Your task to perform on an android device: change keyboard looks Image 0: 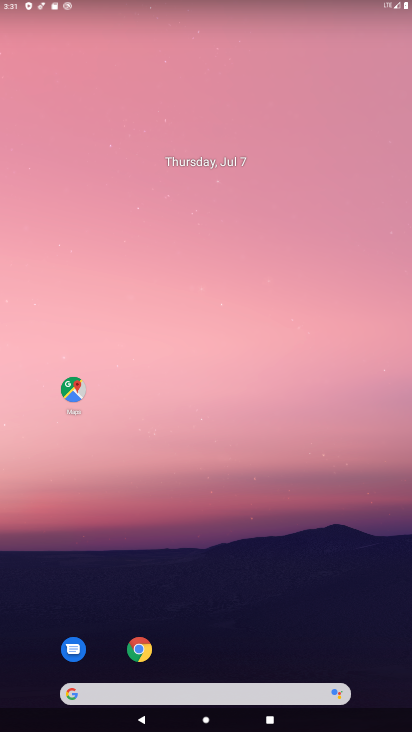
Step 0: drag from (280, 650) to (272, 127)
Your task to perform on an android device: change keyboard looks Image 1: 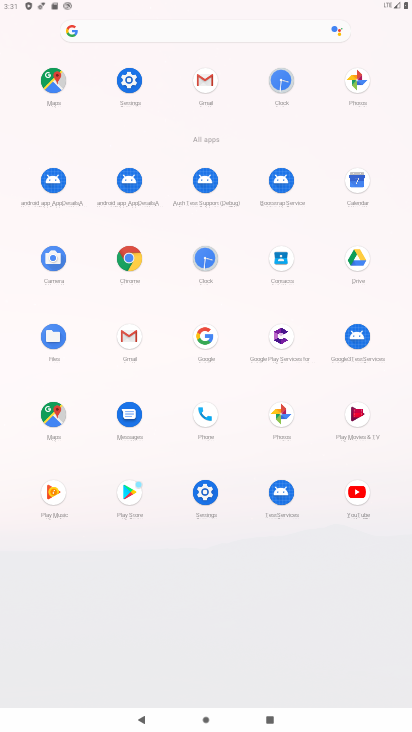
Step 1: click (130, 102)
Your task to perform on an android device: change keyboard looks Image 2: 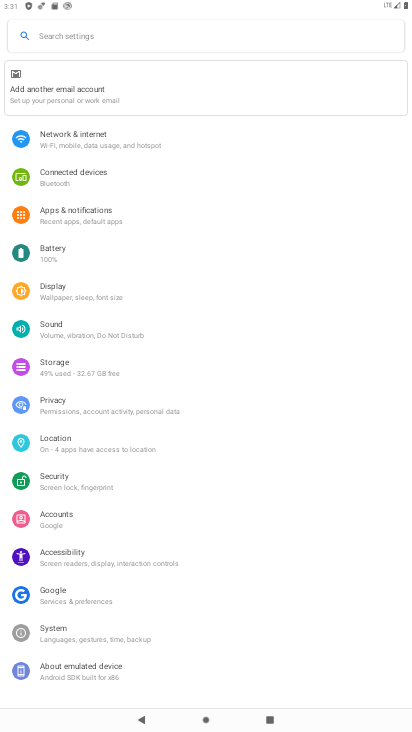
Step 2: click (96, 637)
Your task to perform on an android device: change keyboard looks Image 3: 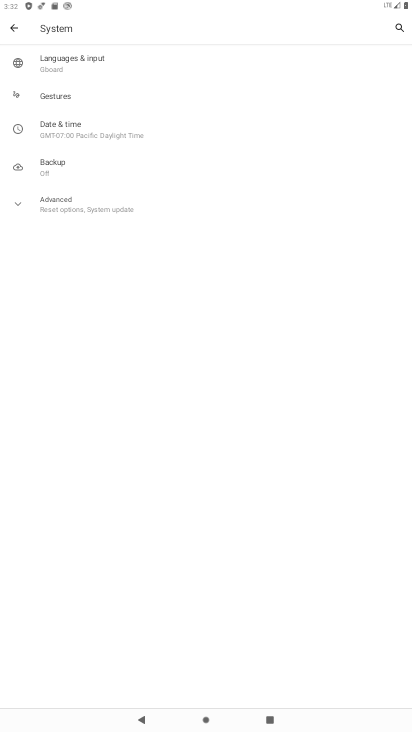
Step 3: click (103, 74)
Your task to perform on an android device: change keyboard looks Image 4: 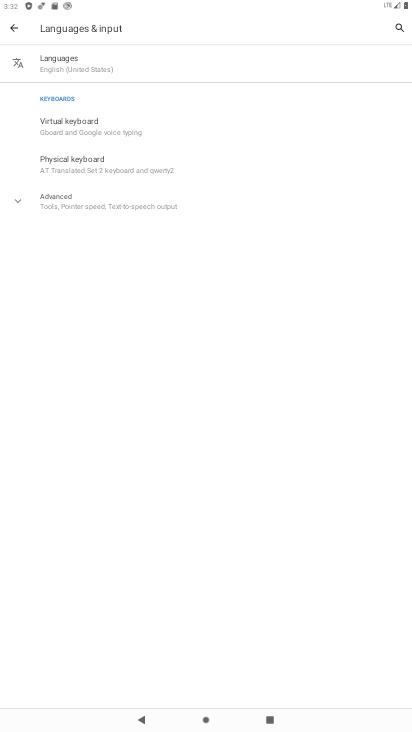
Step 4: click (114, 128)
Your task to perform on an android device: change keyboard looks Image 5: 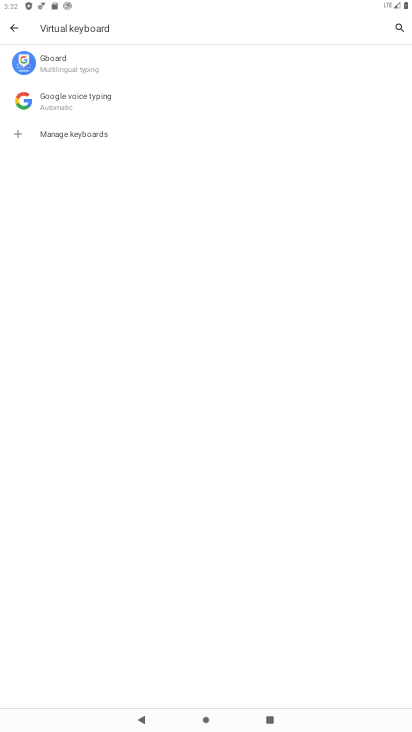
Step 5: click (101, 74)
Your task to perform on an android device: change keyboard looks Image 6: 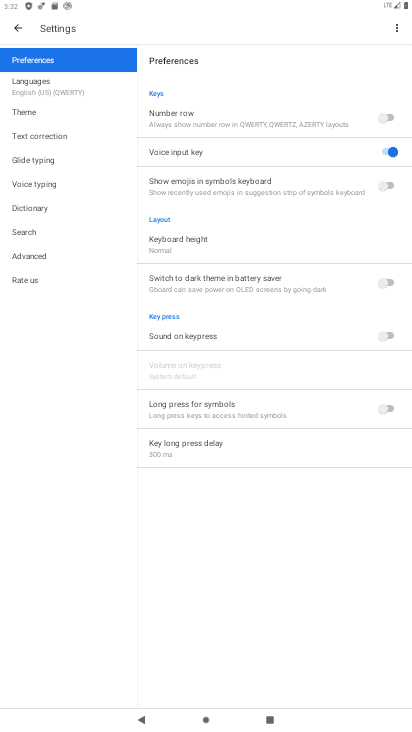
Step 6: click (34, 115)
Your task to perform on an android device: change keyboard looks Image 7: 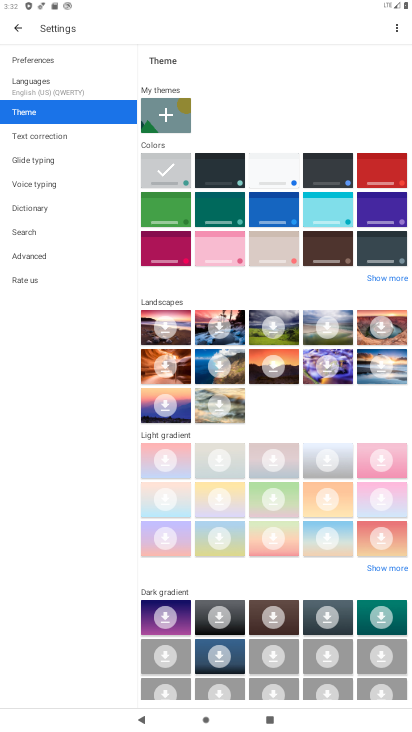
Step 7: click (227, 179)
Your task to perform on an android device: change keyboard looks Image 8: 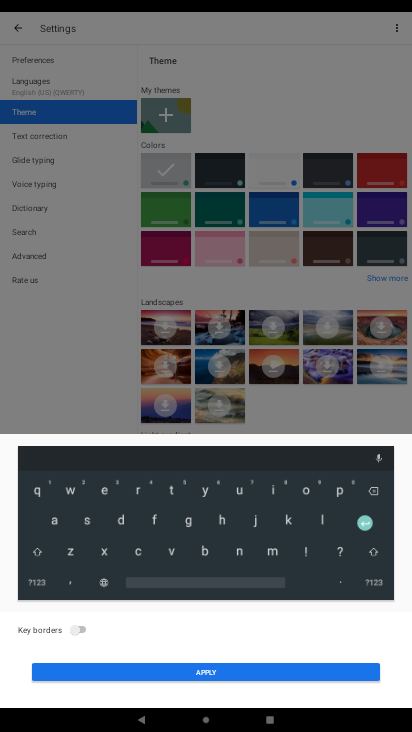
Step 8: click (352, 673)
Your task to perform on an android device: change keyboard looks Image 9: 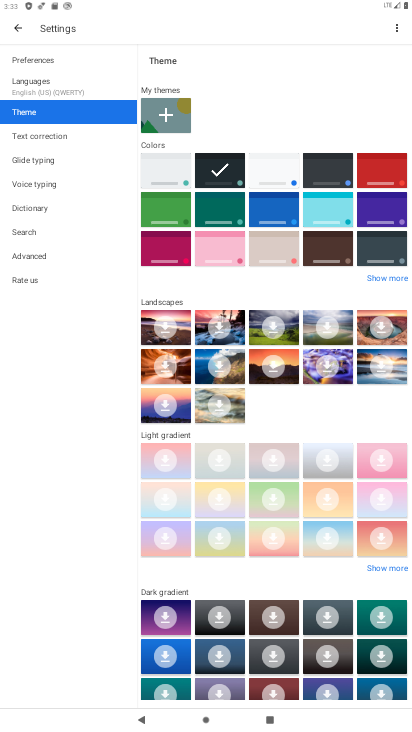
Step 9: task complete